Your task to perform on an android device: make emails show in primary in the gmail app Image 0: 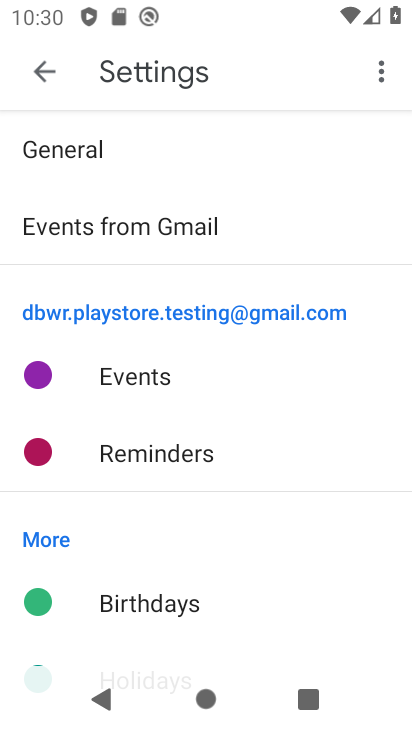
Step 0: press home button
Your task to perform on an android device: make emails show in primary in the gmail app Image 1: 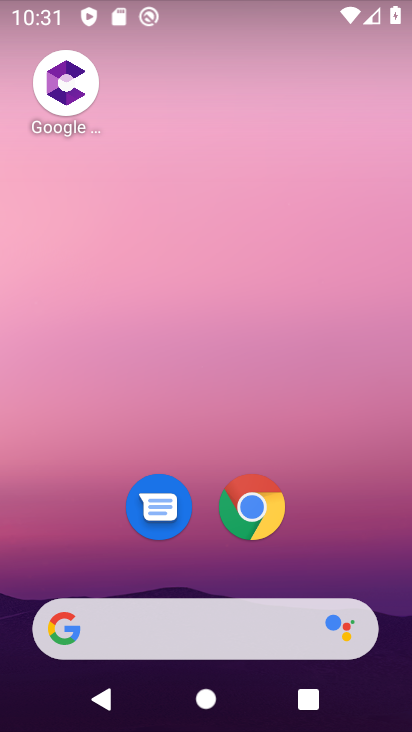
Step 1: drag from (260, 538) to (330, 250)
Your task to perform on an android device: make emails show in primary in the gmail app Image 2: 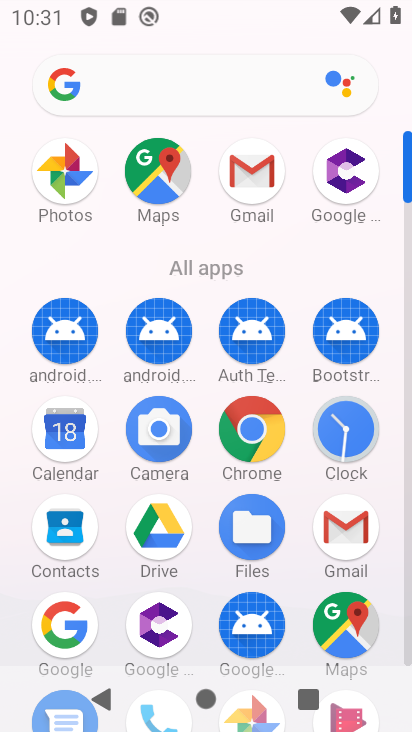
Step 2: click (335, 525)
Your task to perform on an android device: make emails show in primary in the gmail app Image 3: 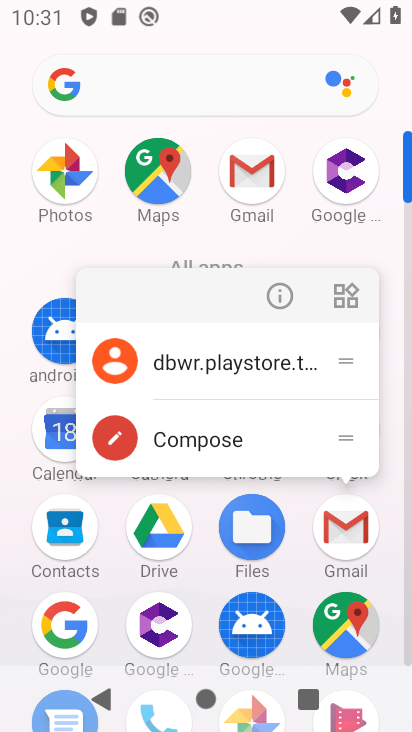
Step 3: click (365, 527)
Your task to perform on an android device: make emails show in primary in the gmail app Image 4: 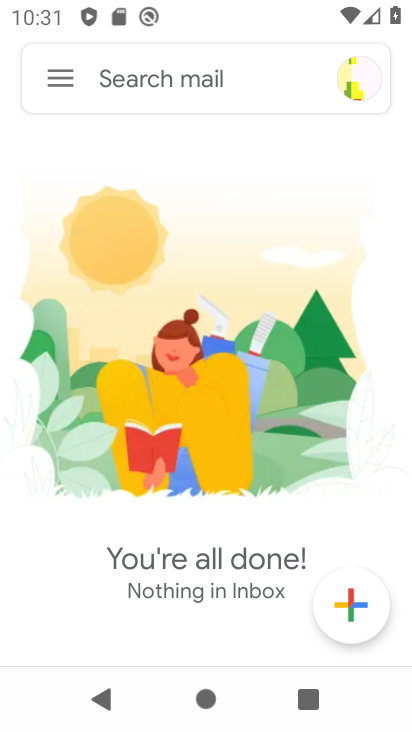
Step 4: click (54, 84)
Your task to perform on an android device: make emails show in primary in the gmail app Image 5: 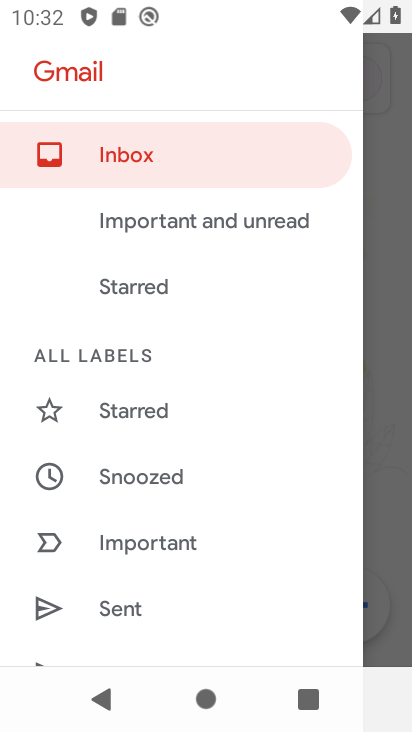
Step 5: drag from (122, 548) to (266, 274)
Your task to perform on an android device: make emails show in primary in the gmail app Image 6: 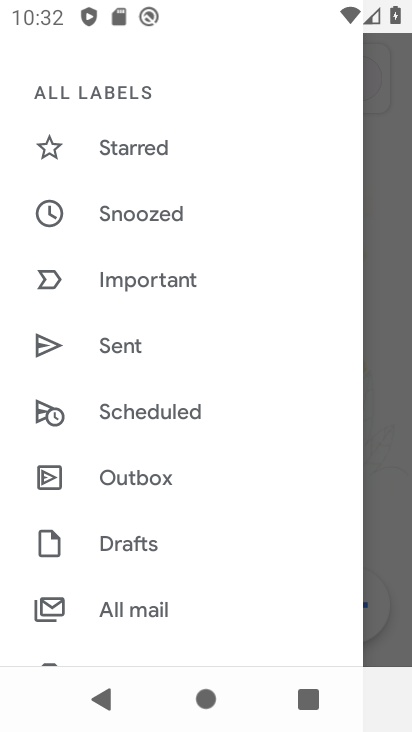
Step 6: drag from (139, 575) to (229, 292)
Your task to perform on an android device: make emails show in primary in the gmail app Image 7: 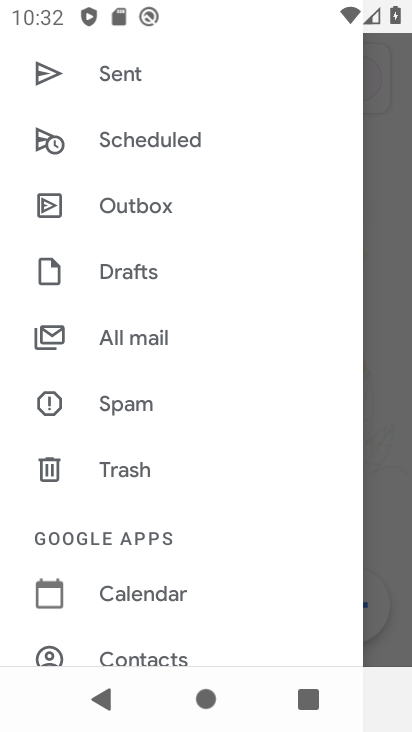
Step 7: drag from (121, 573) to (219, 303)
Your task to perform on an android device: make emails show in primary in the gmail app Image 8: 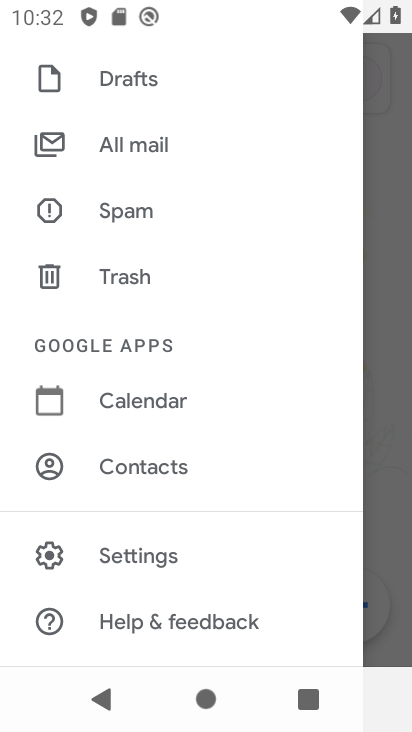
Step 8: click (118, 544)
Your task to perform on an android device: make emails show in primary in the gmail app Image 9: 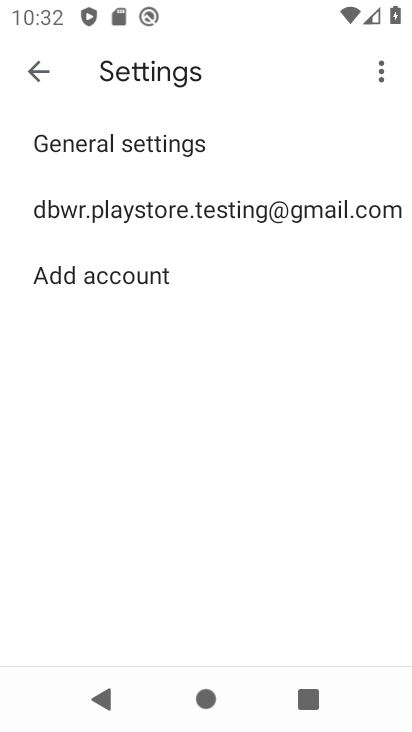
Step 9: click (196, 204)
Your task to perform on an android device: make emails show in primary in the gmail app Image 10: 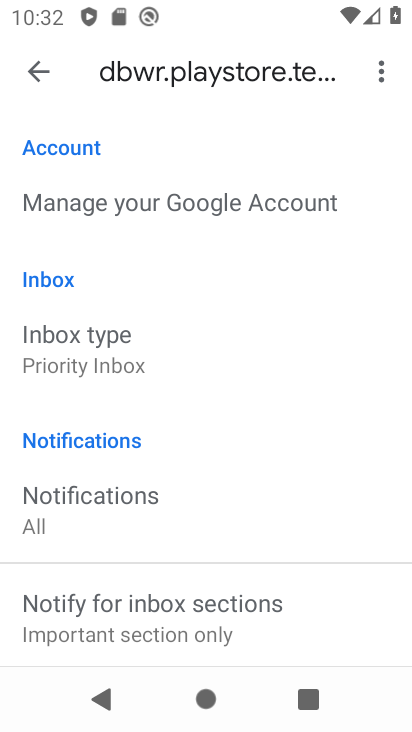
Step 10: click (129, 360)
Your task to perform on an android device: make emails show in primary in the gmail app Image 11: 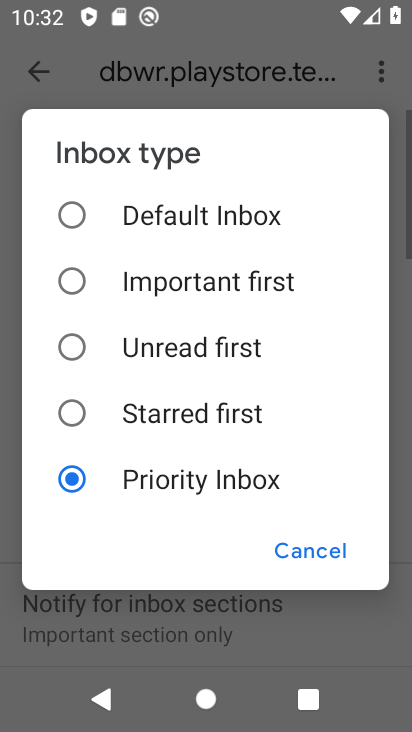
Step 11: click (169, 222)
Your task to perform on an android device: make emails show in primary in the gmail app Image 12: 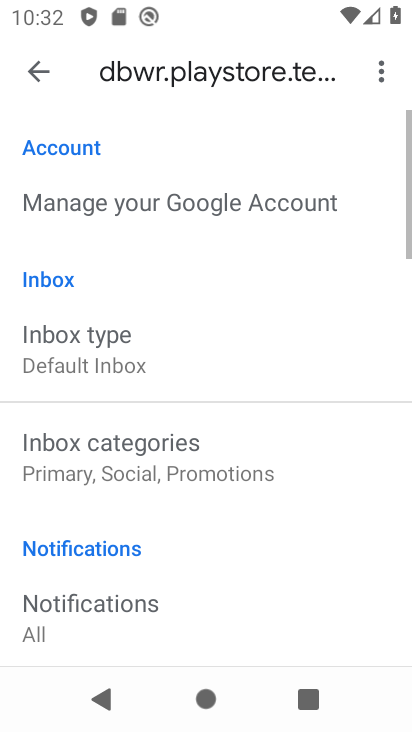
Step 12: click (106, 448)
Your task to perform on an android device: make emails show in primary in the gmail app Image 13: 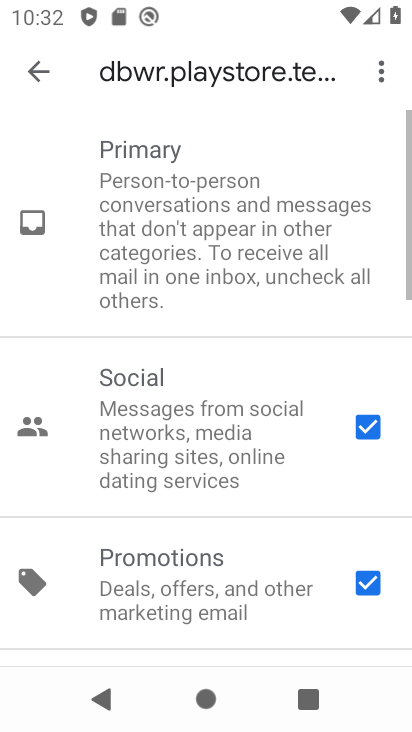
Step 13: click (364, 423)
Your task to perform on an android device: make emails show in primary in the gmail app Image 14: 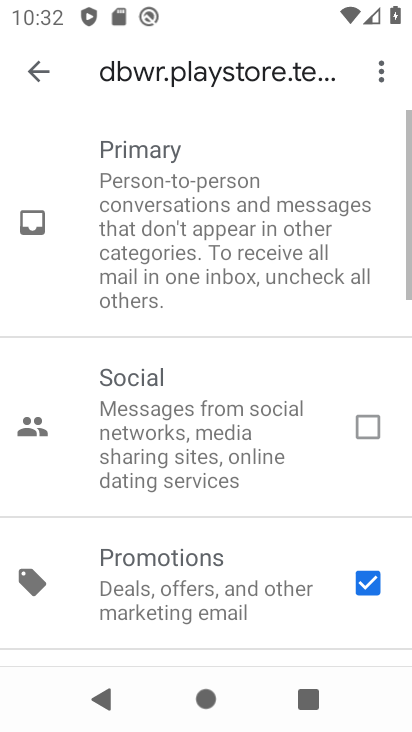
Step 14: click (356, 589)
Your task to perform on an android device: make emails show in primary in the gmail app Image 15: 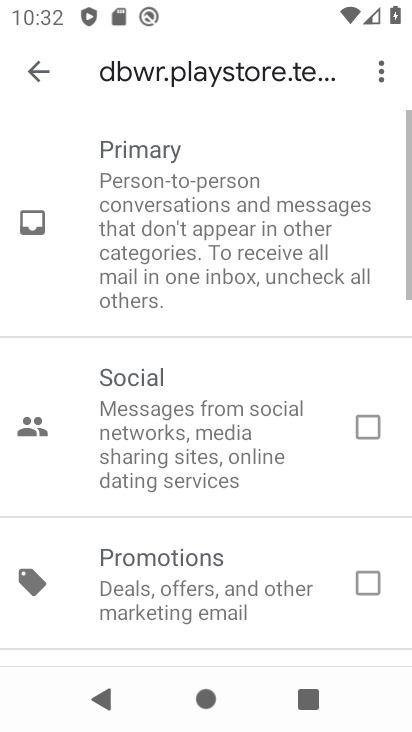
Step 15: click (231, 232)
Your task to perform on an android device: make emails show in primary in the gmail app Image 16: 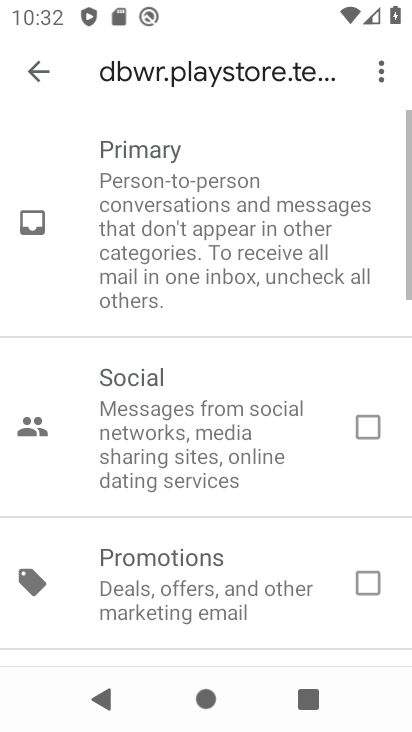
Step 16: task complete